Your task to perform on an android device: Go to Google maps Image 0: 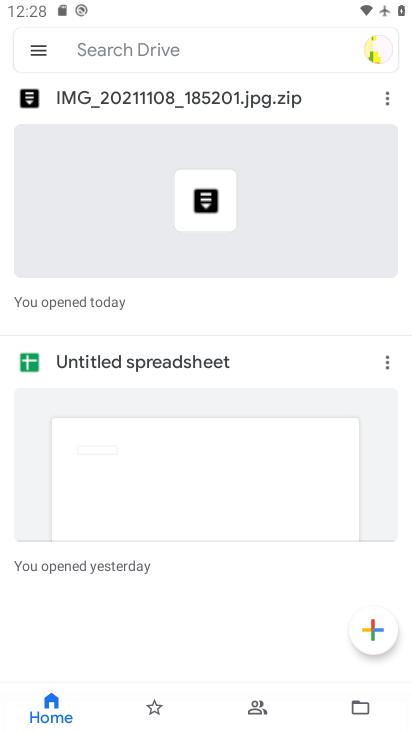
Step 0: press home button
Your task to perform on an android device: Go to Google maps Image 1: 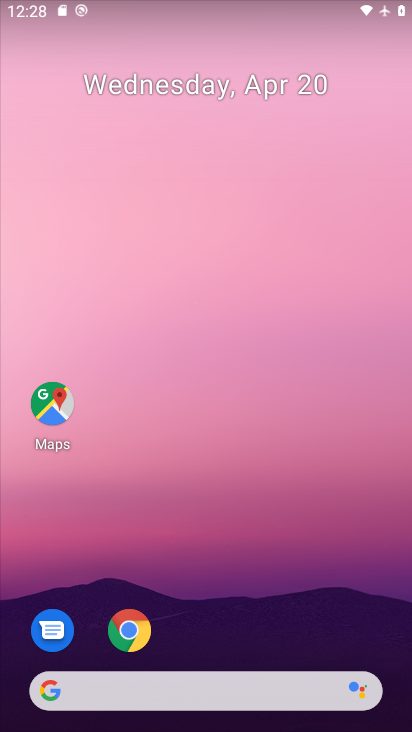
Step 1: drag from (170, 693) to (349, 65)
Your task to perform on an android device: Go to Google maps Image 2: 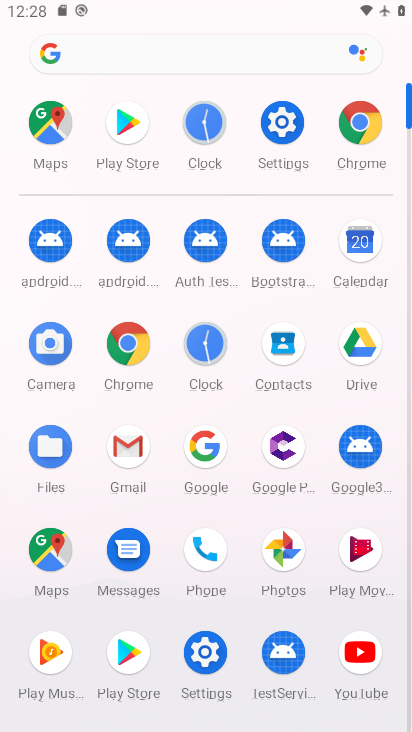
Step 2: click (52, 133)
Your task to perform on an android device: Go to Google maps Image 3: 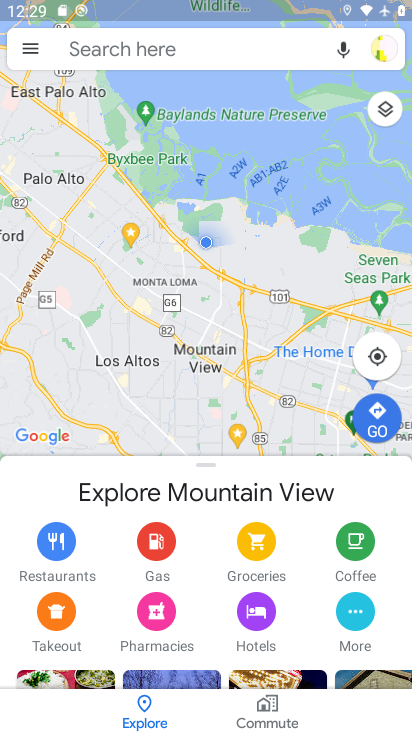
Step 3: task complete